Your task to perform on an android device: open a bookmark in the chrome app Image 0: 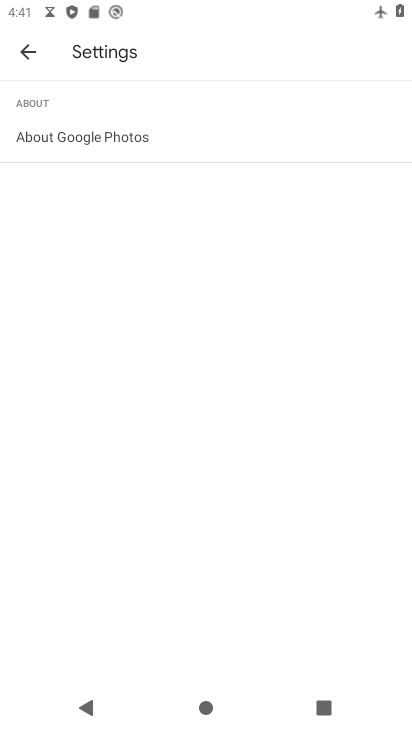
Step 0: press home button
Your task to perform on an android device: open a bookmark in the chrome app Image 1: 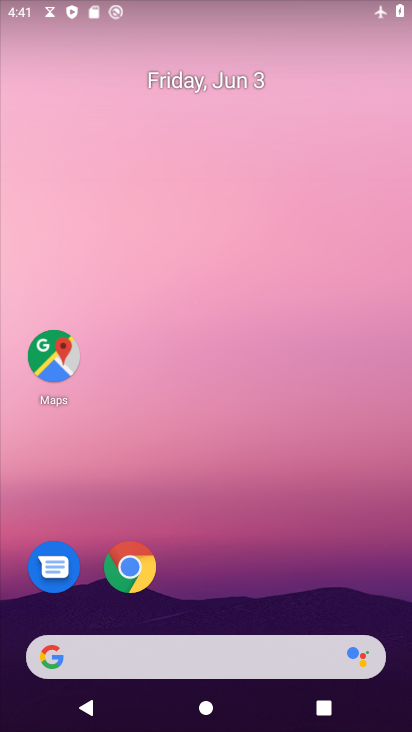
Step 1: click (129, 566)
Your task to perform on an android device: open a bookmark in the chrome app Image 2: 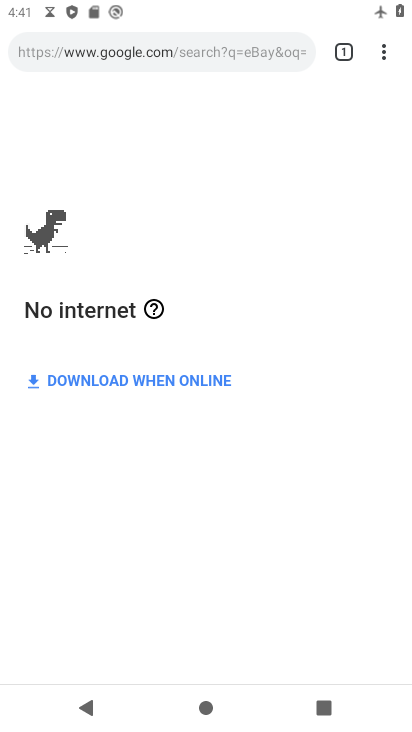
Step 2: click (385, 47)
Your task to perform on an android device: open a bookmark in the chrome app Image 3: 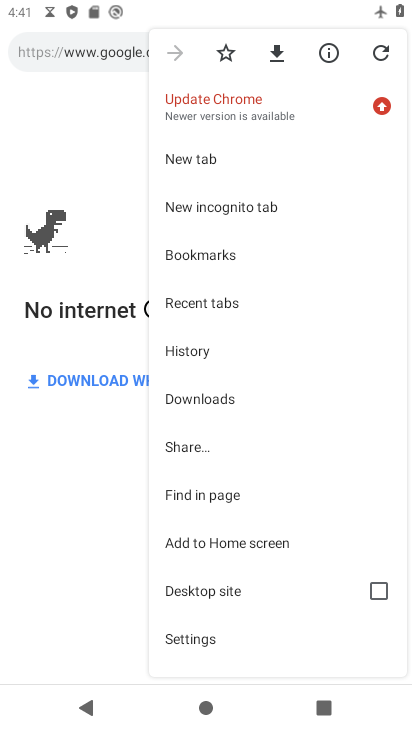
Step 3: click (210, 254)
Your task to perform on an android device: open a bookmark in the chrome app Image 4: 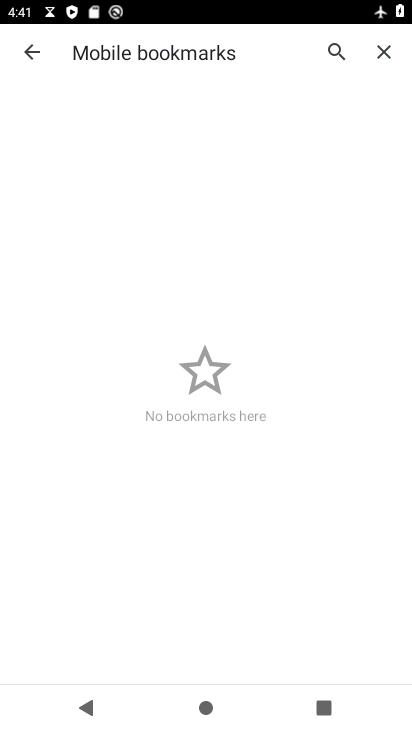
Step 4: task complete